Your task to perform on an android device: See recent photos Image 0: 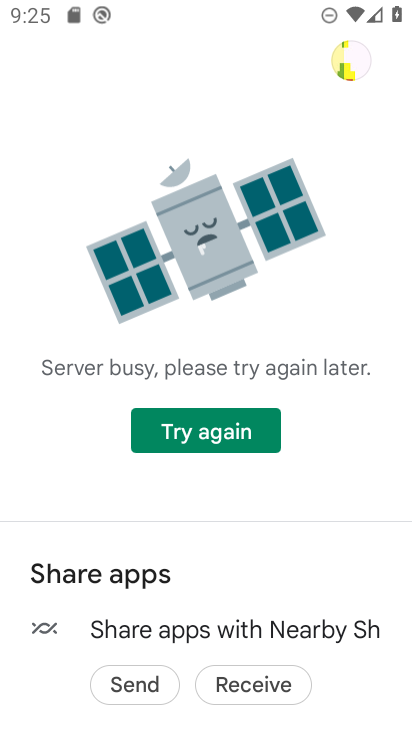
Step 0: press home button
Your task to perform on an android device: See recent photos Image 1: 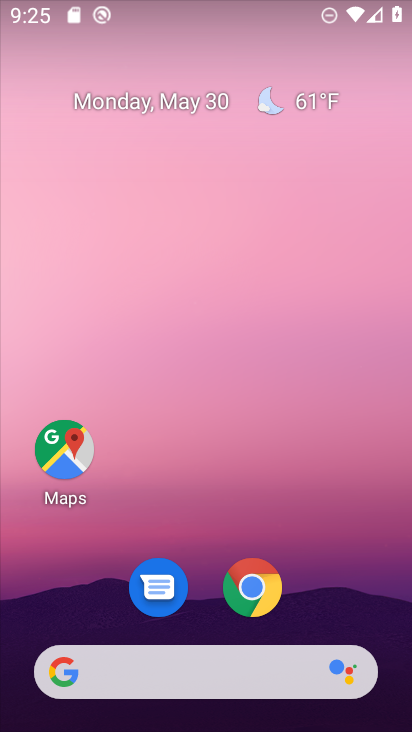
Step 1: drag from (209, 617) to (179, 10)
Your task to perform on an android device: See recent photos Image 2: 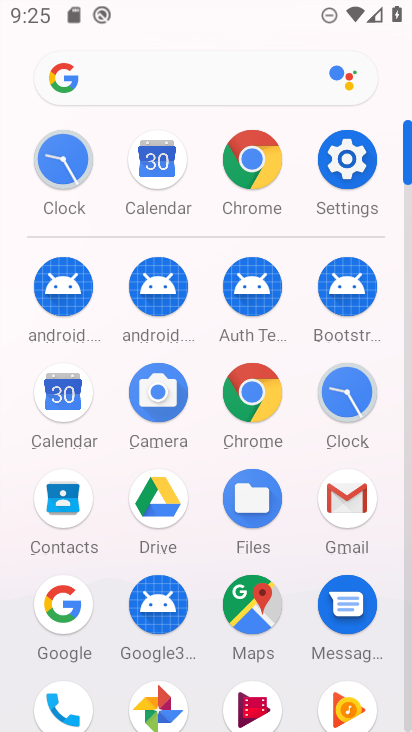
Step 2: click (165, 685)
Your task to perform on an android device: See recent photos Image 3: 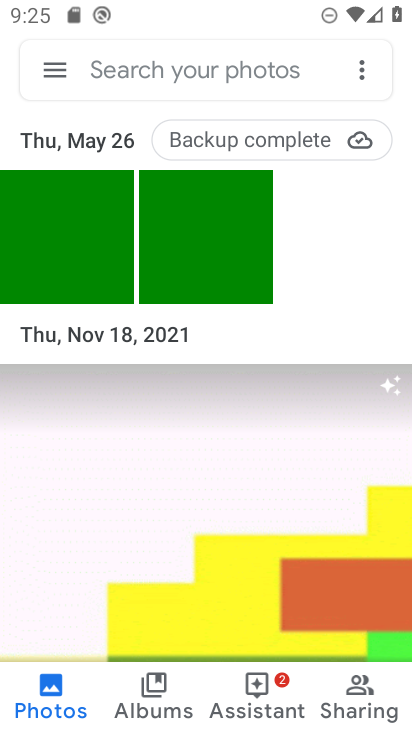
Step 3: task complete